Your task to perform on an android device: Open wifi settings Image 0: 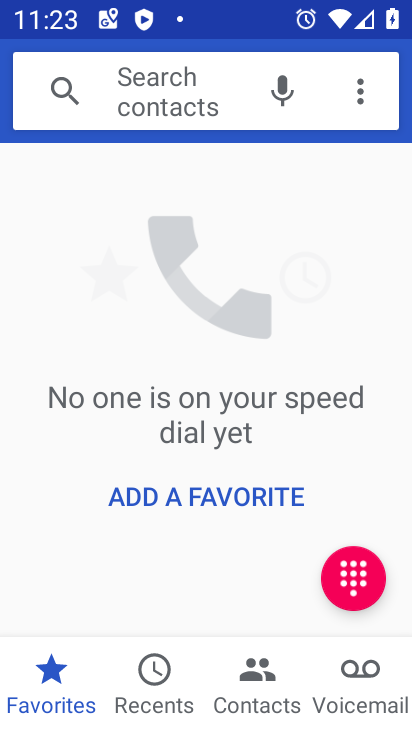
Step 0: press home button
Your task to perform on an android device: Open wifi settings Image 1: 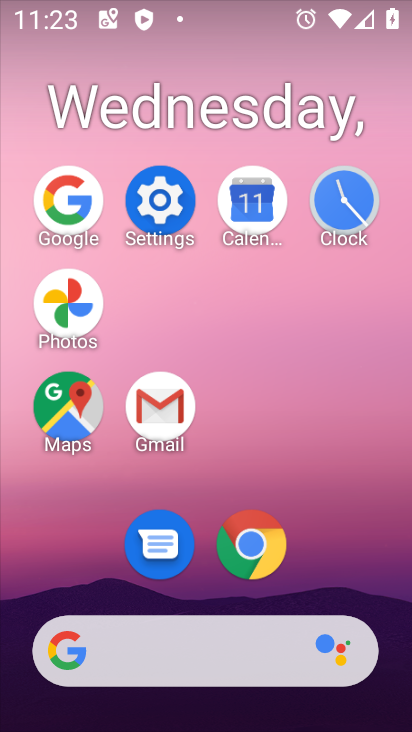
Step 1: click (181, 196)
Your task to perform on an android device: Open wifi settings Image 2: 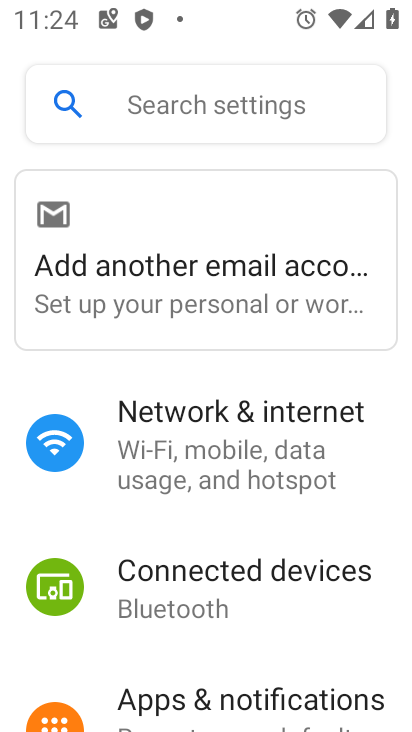
Step 2: click (249, 435)
Your task to perform on an android device: Open wifi settings Image 3: 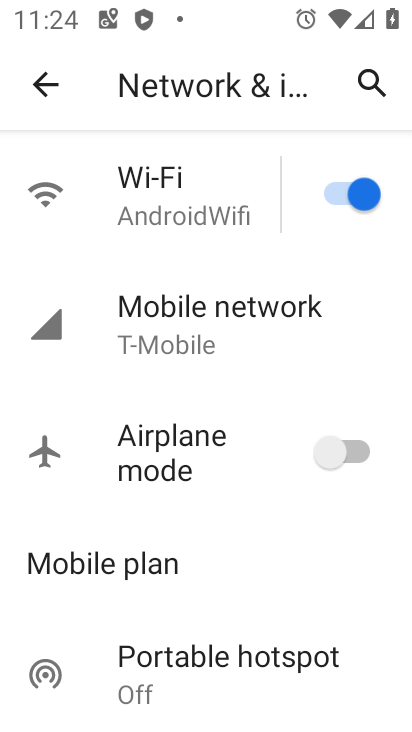
Step 3: click (204, 176)
Your task to perform on an android device: Open wifi settings Image 4: 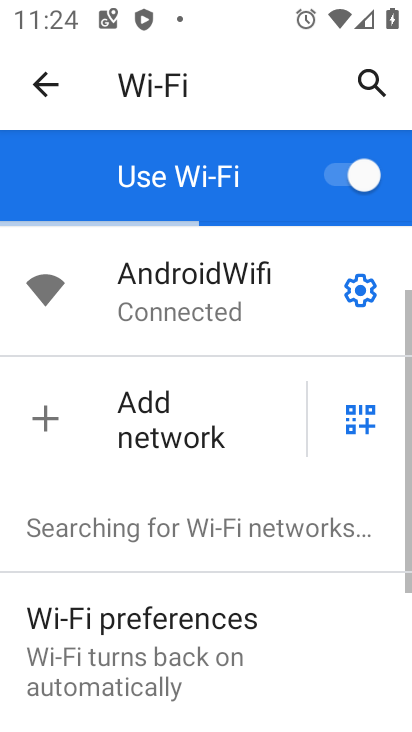
Step 4: click (362, 284)
Your task to perform on an android device: Open wifi settings Image 5: 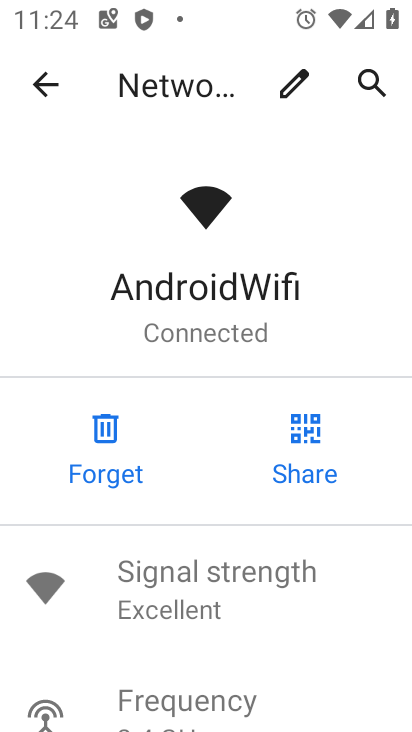
Step 5: task complete